Your task to perform on an android device: Open display settings Image 0: 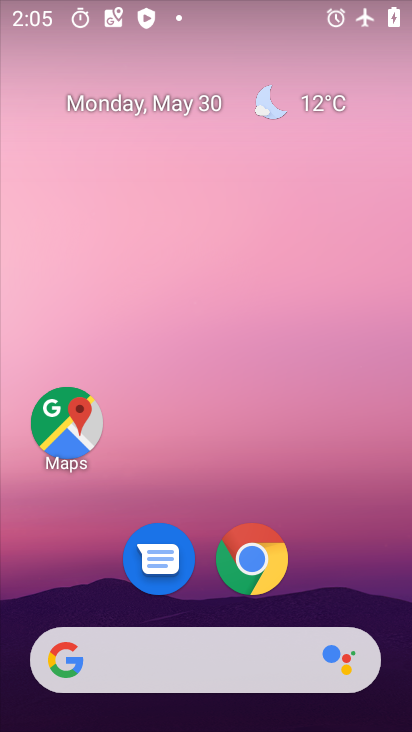
Step 0: drag from (208, 418) to (263, 26)
Your task to perform on an android device: Open display settings Image 1: 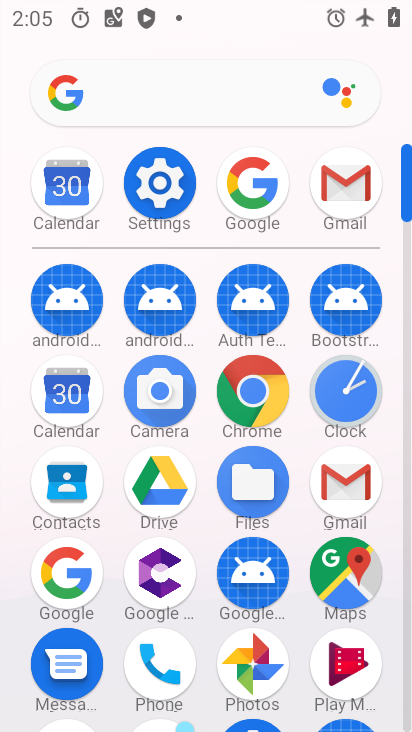
Step 1: click (155, 179)
Your task to perform on an android device: Open display settings Image 2: 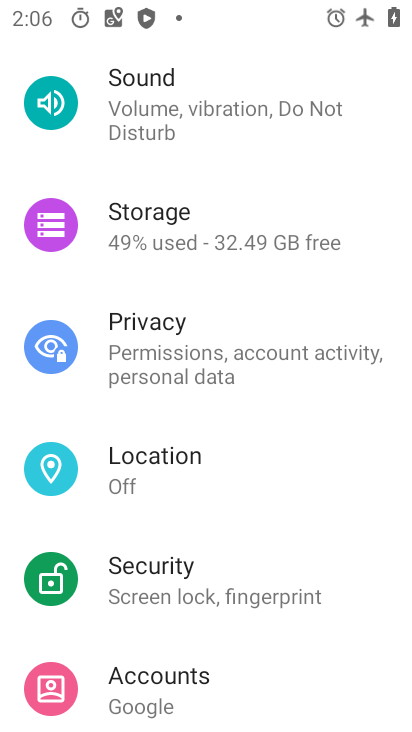
Step 2: drag from (159, 602) to (190, 708)
Your task to perform on an android device: Open display settings Image 3: 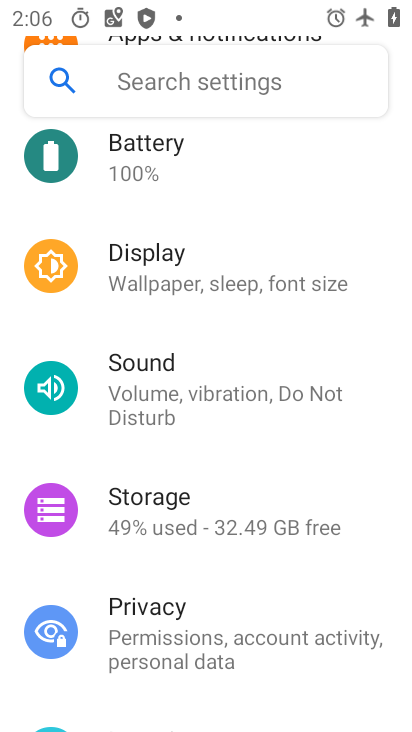
Step 3: click (179, 278)
Your task to perform on an android device: Open display settings Image 4: 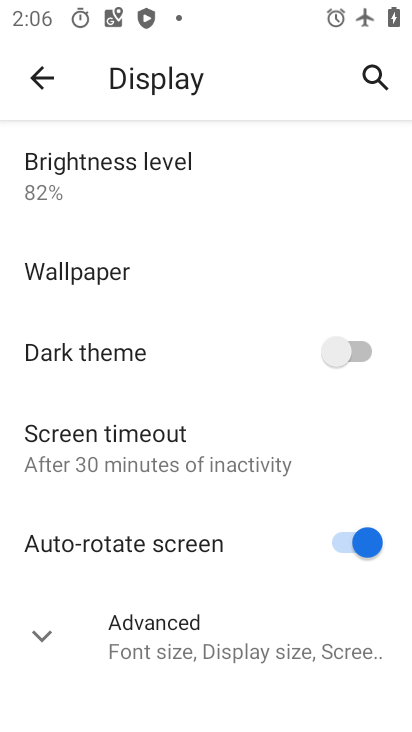
Step 4: task complete